Your task to perform on an android device: Open Yahoo.com Image 0: 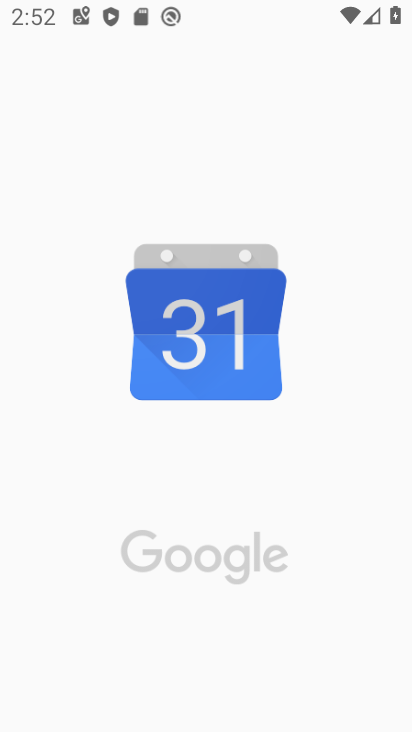
Step 0: drag from (351, 549) to (344, 211)
Your task to perform on an android device: Open Yahoo.com Image 1: 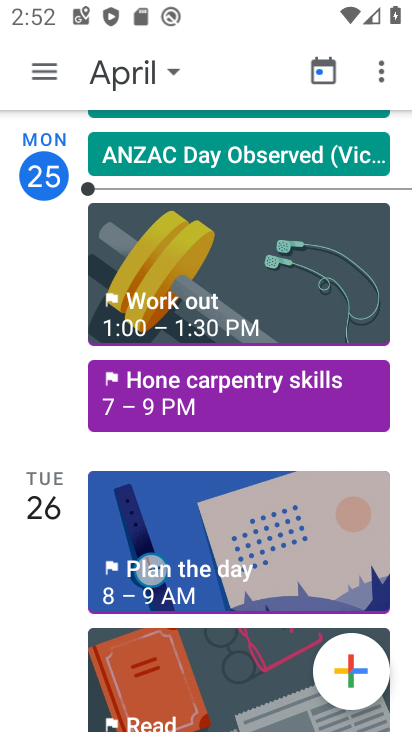
Step 1: press home button
Your task to perform on an android device: Open Yahoo.com Image 2: 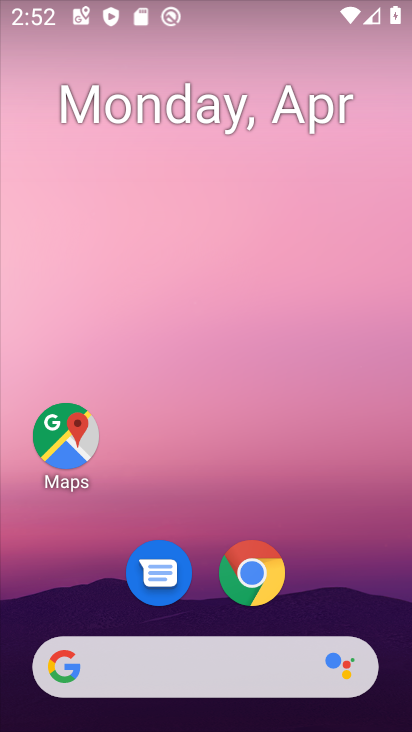
Step 2: drag from (368, 594) to (368, 122)
Your task to perform on an android device: Open Yahoo.com Image 3: 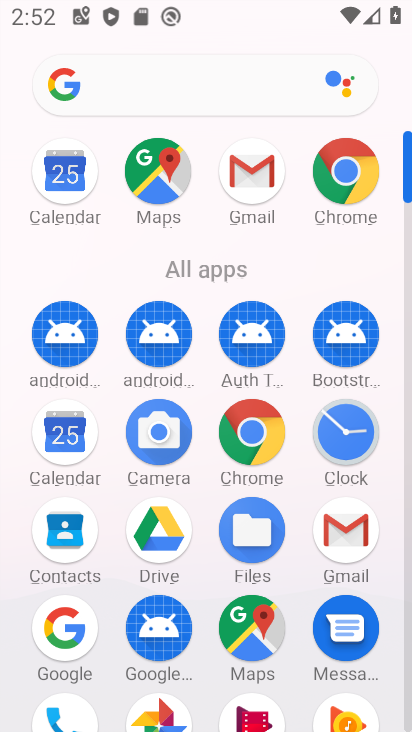
Step 3: click (359, 183)
Your task to perform on an android device: Open Yahoo.com Image 4: 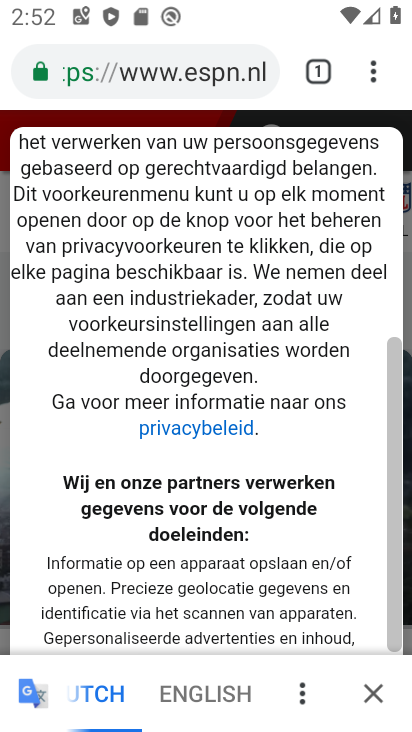
Step 4: press back button
Your task to perform on an android device: Open Yahoo.com Image 5: 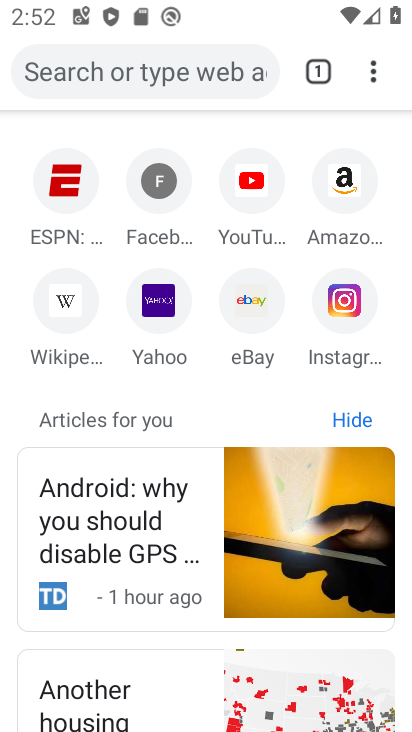
Step 5: drag from (390, 129) to (382, 344)
Your task to perform on an android device: Open Yahoo.com Image 6: 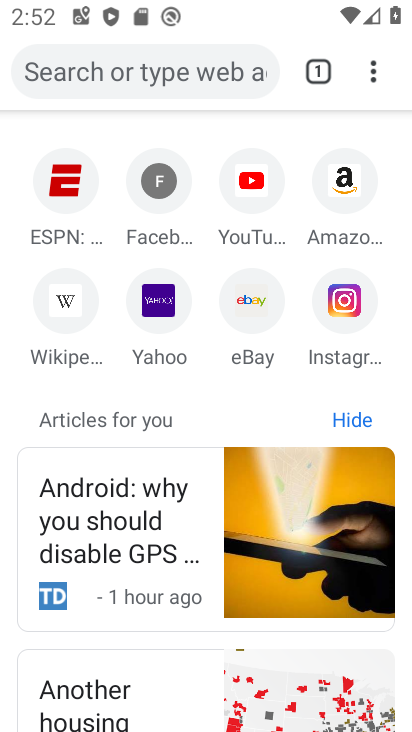
Step 6: click (162, 72)
Your task to perform on an android device: Open Yahoo.com Image 7: 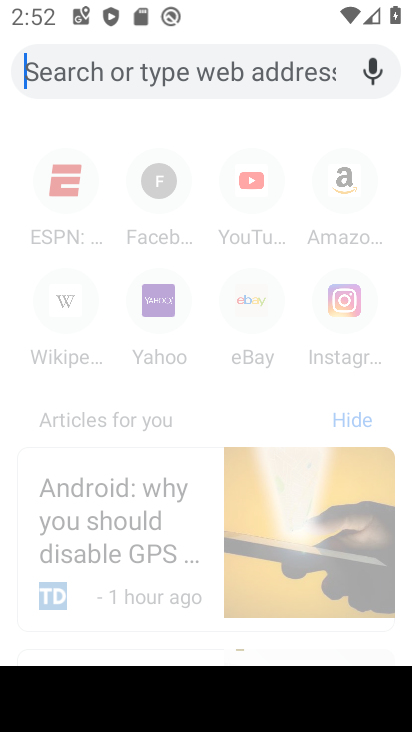
Step 7: type "yahoo.com"
Your task to perform on an android device: Open Yahoo.com Image 8: 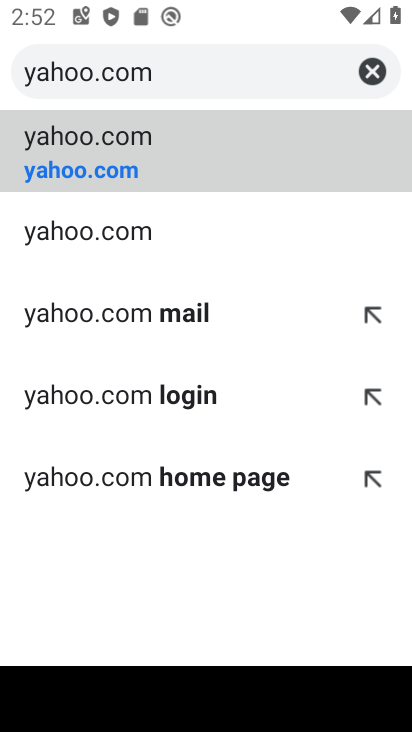
Step 8: click (229, 143)
Your task to perform on an android device: Open Yahoo.com Image 9: 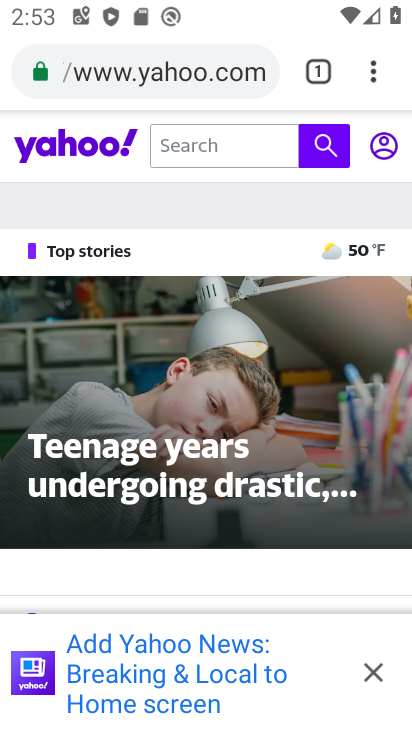
Step 9: task complete